Your task to perform on an android device: turn on priority inbox in the gmail app Image 0: 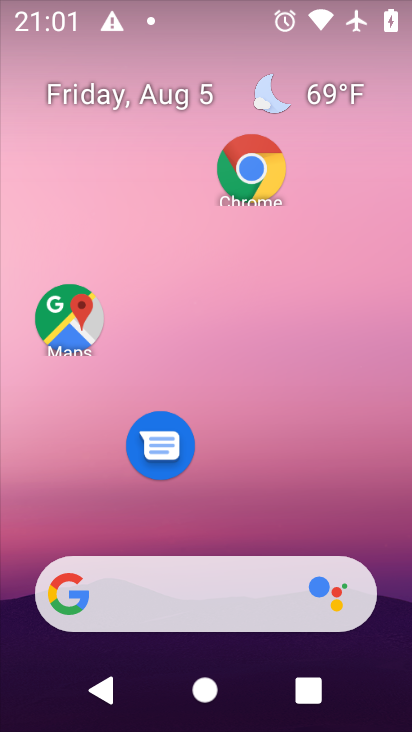
Step 0: drag from (213, 504) to (174, 5)
Your task to perform on an android device: turn on priority inbox in the gmail app Image 1: 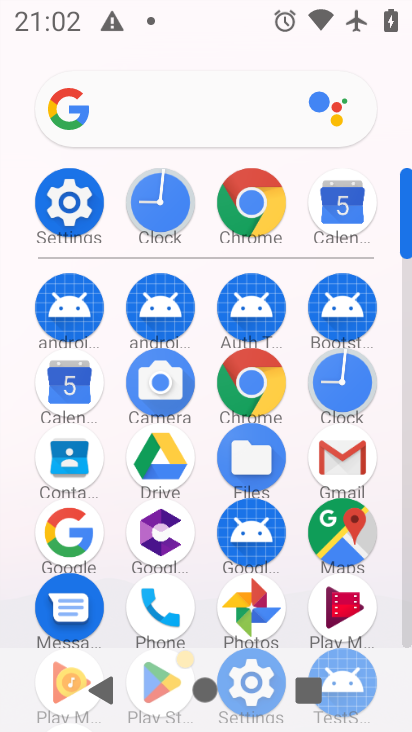
Step 1: click (321, 460)
Your task to perform on an android device: turn on priority inbox in the gmail app Image 2: 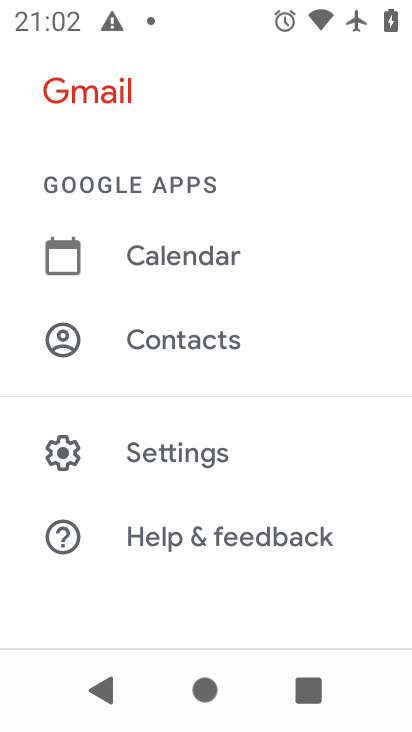
Step 2: click (227, 451)
Your task to perform on an android device: turn on priority inbox in the gmail app Image 3: 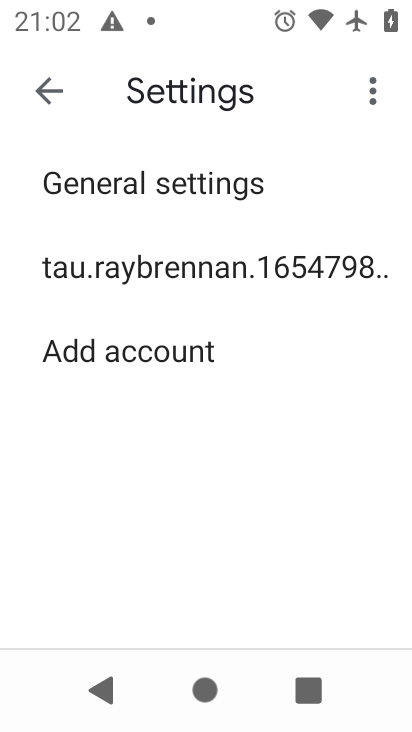
Step 3: click (175, 280)
Your task to perform on an android device: turn on priority inbox in the gmail app Image 4: 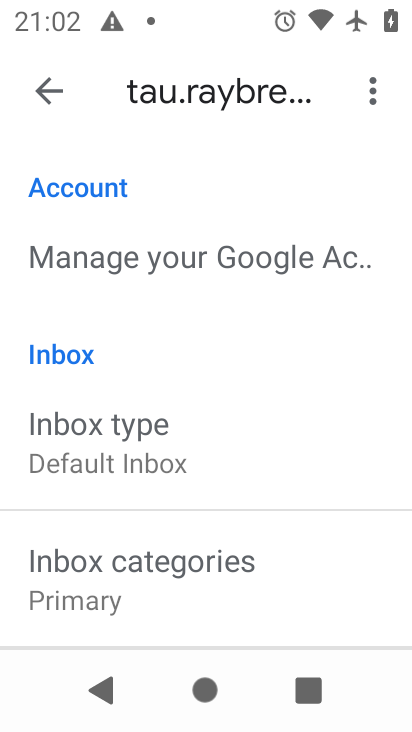
Step 4: click (145, 446)
Your task to perform on an android device: turn on priority inbox in the gmail app Image 5: 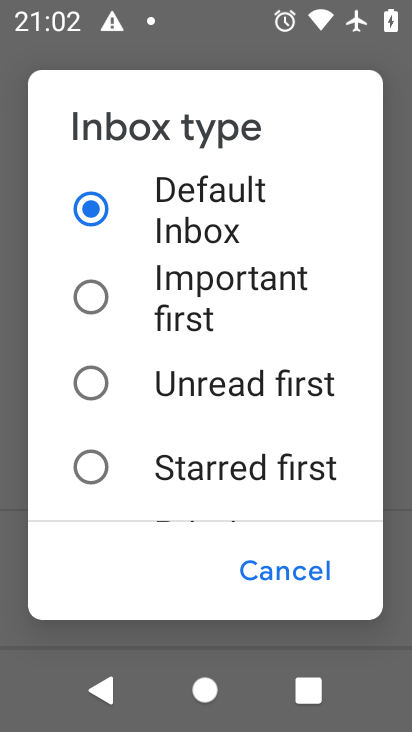
Step 5: drag from (177, 434) to (200, 188)
Your task to perform on an android device: turn on priority inbox in the gmail app Image 6: 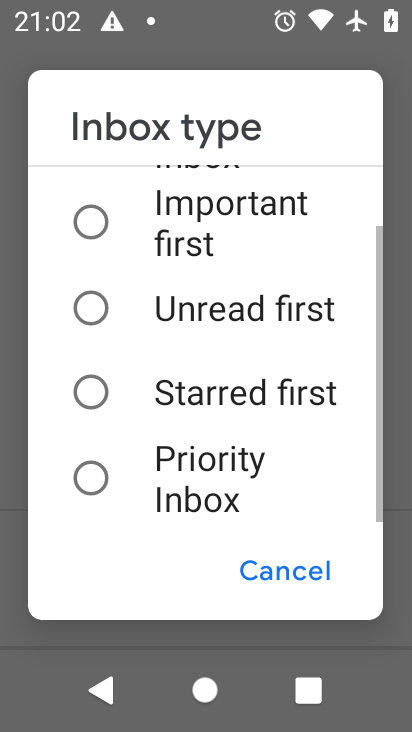
Step 6: click (84, 463)
Your task to perform on an android device: turn on priority inbox in the gmail app Image 7: 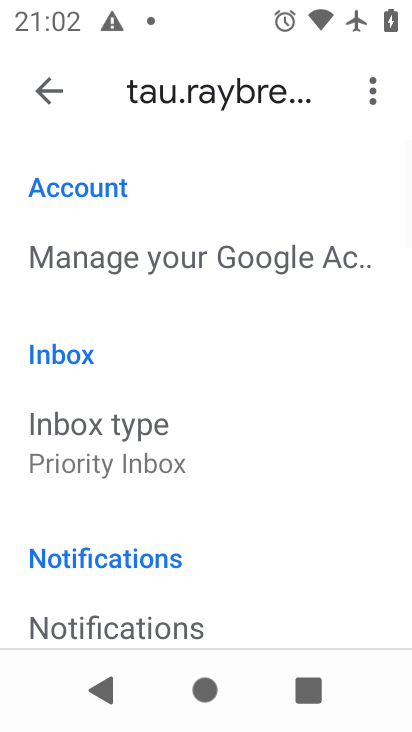
Step 7: task complete